Your task to perform on an android device: Open settings Image 0: 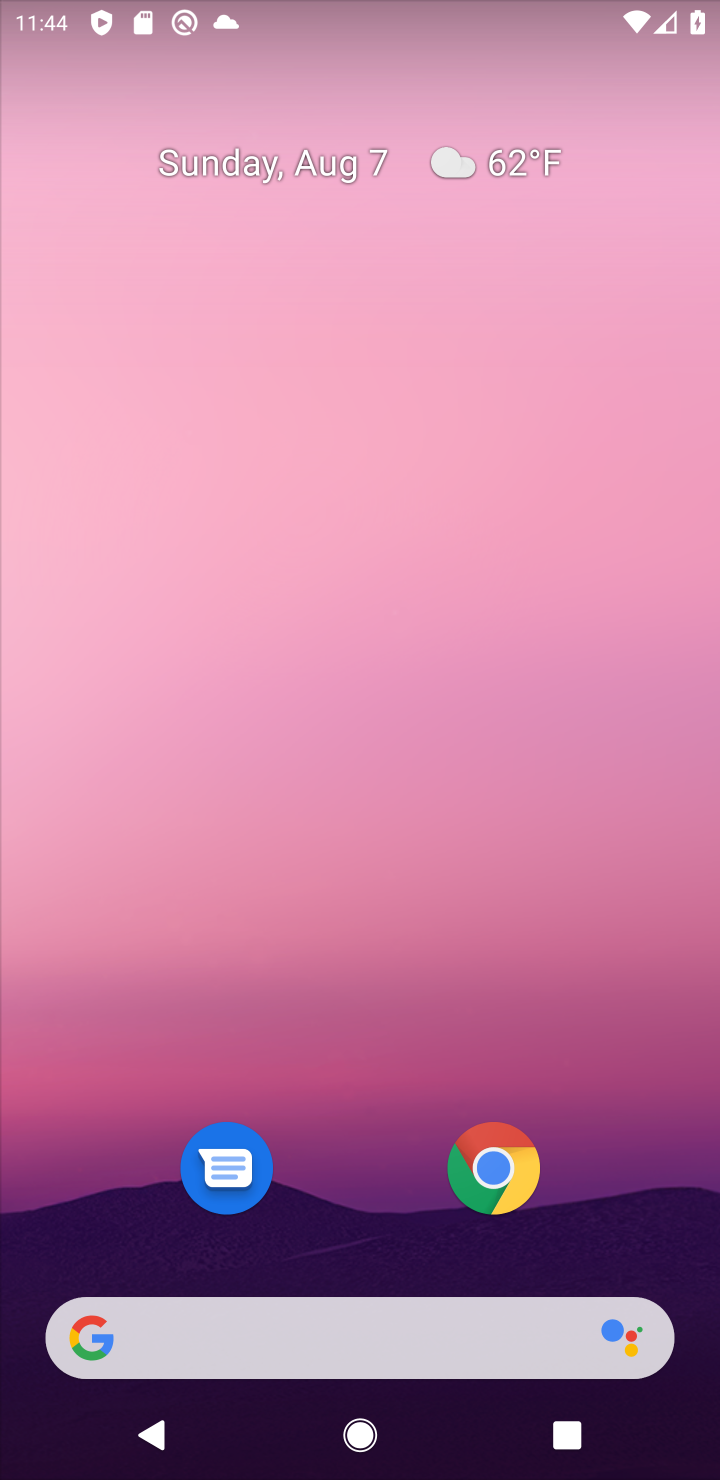
Step 0: press home button
Your task to perform on an android device: Open settings Image 1: 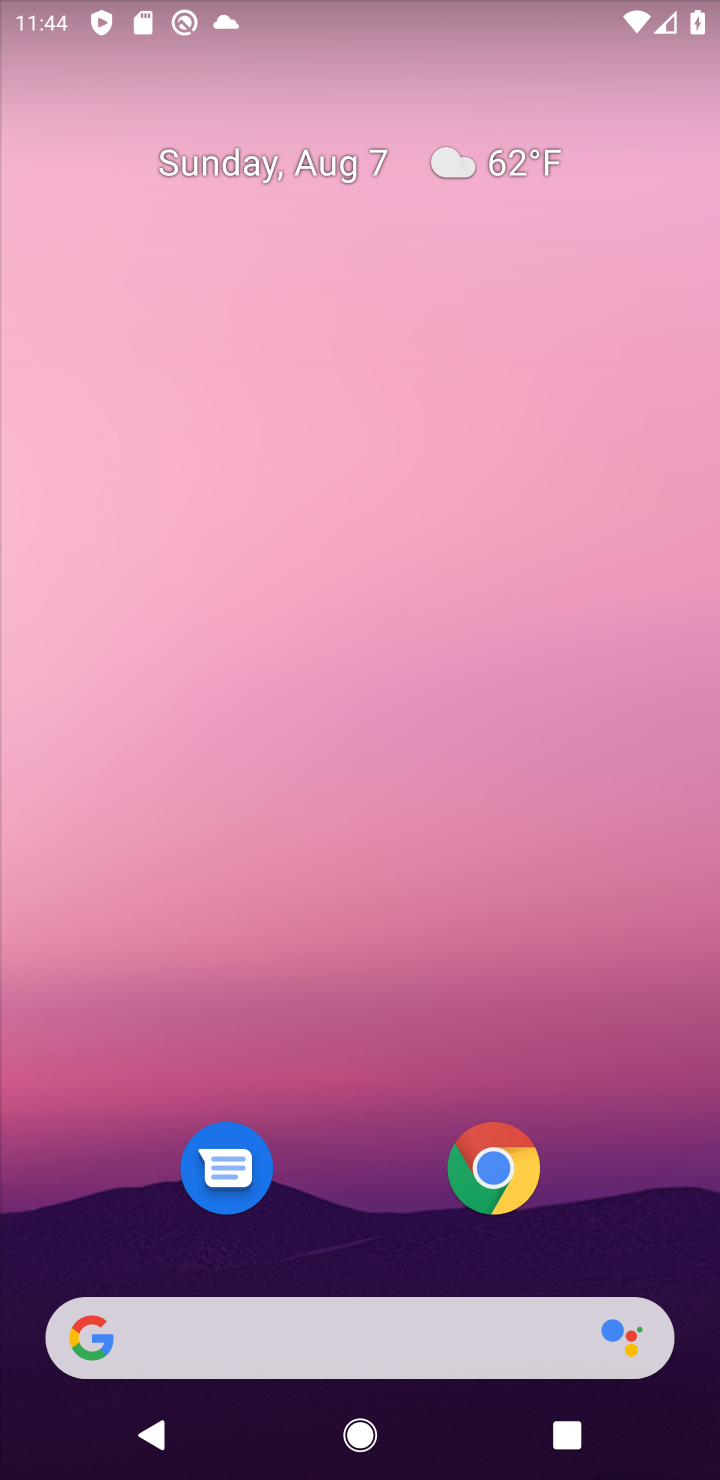
Step 1: drag from (334, 1276) to (425, 224)
Your task to perform on an android device: Open settings Image 2: 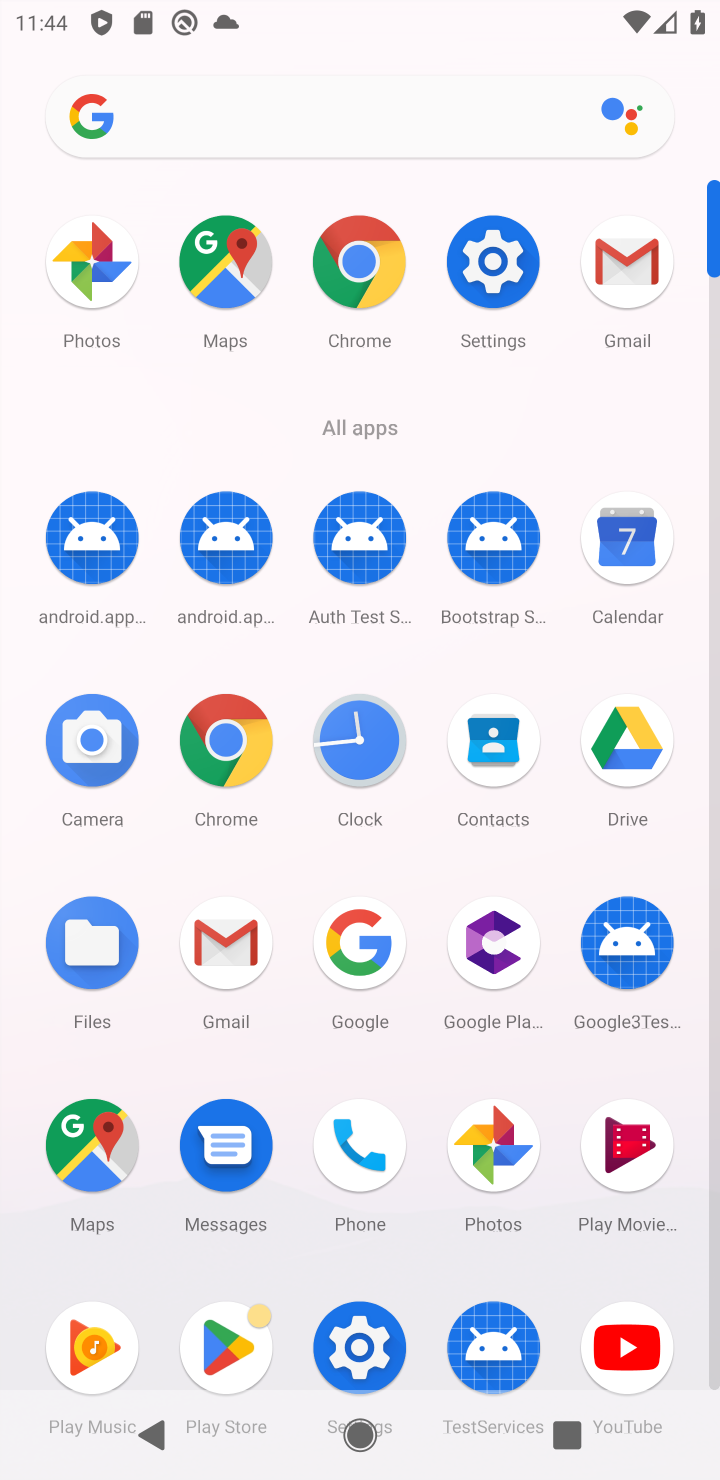
Step 2: click (490, 287)
Your task to perform on an android device: Open settings Image 3: 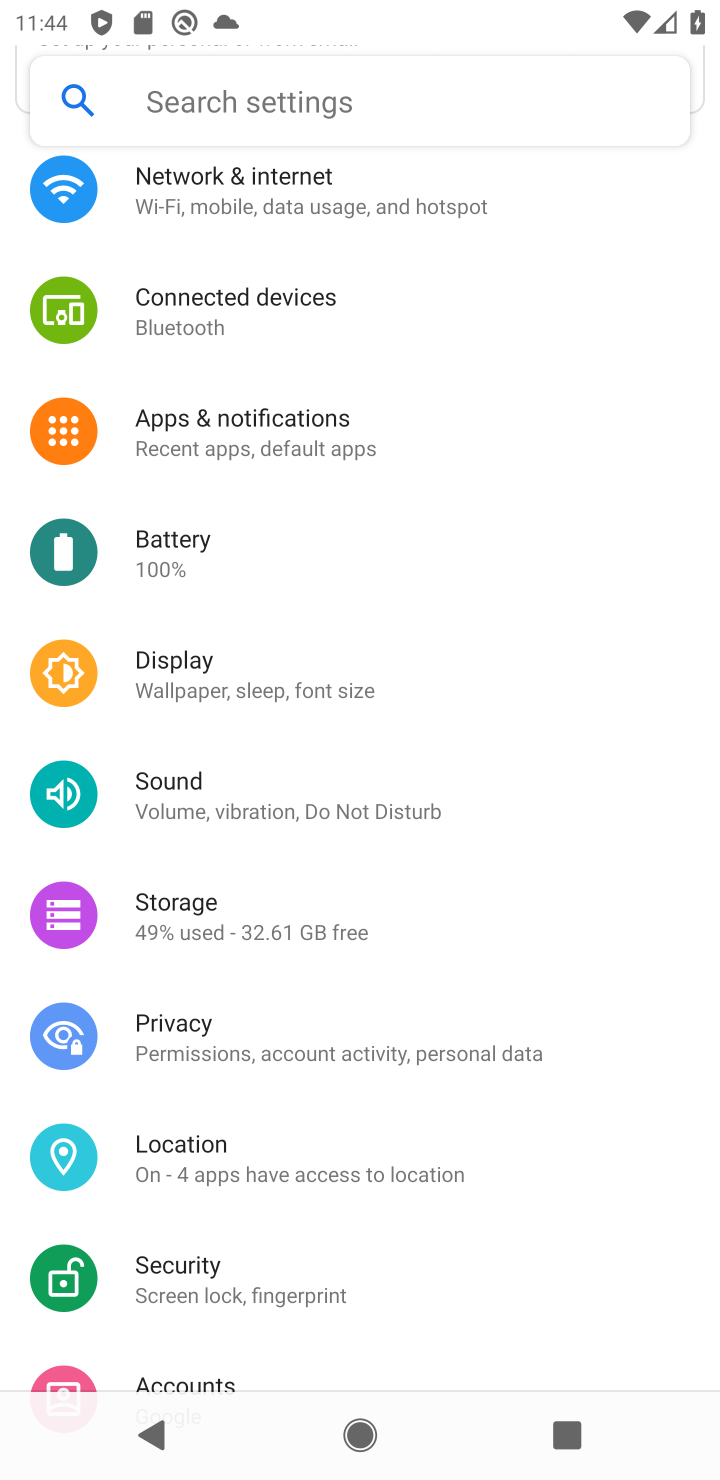
Step 3: task complete